Your task to perform on an android device: turn on sleep mode Image 0: 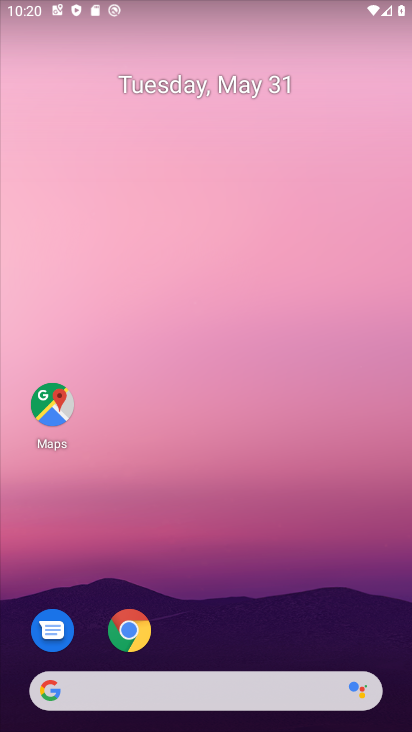
Step 0: drag from (259, 609) to (277, 169)
Your task to perform on an android device: turn on sleep mode Image 1: 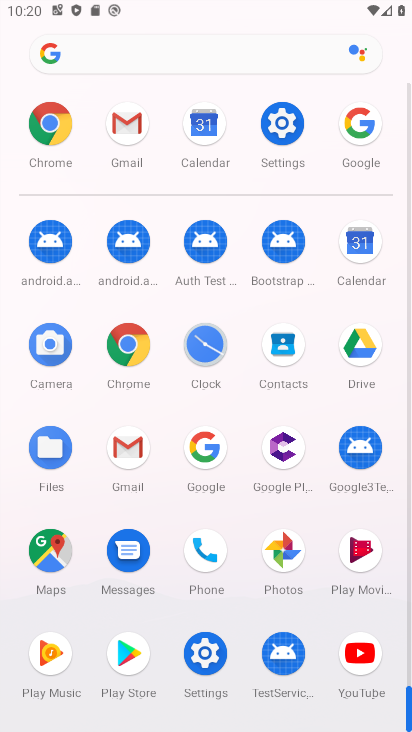
Step 1: click (290, 151)
Your task to perform on an android device: turn on sleep mode Image 2: 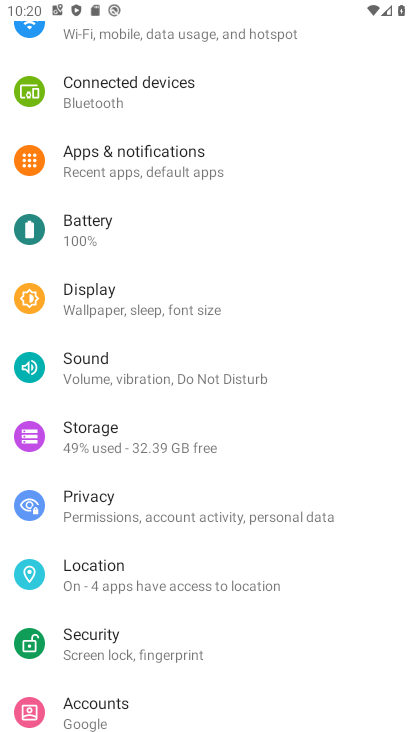
Step 2: click (196, 300)
Your task to perform on an android device: turn on sleep mode Image 3: 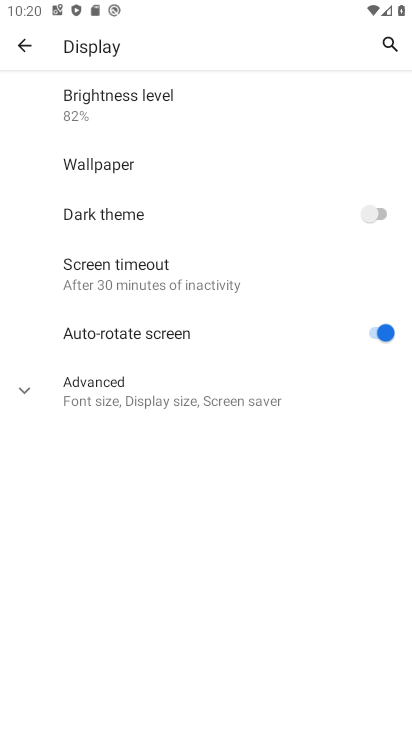
Step 3: click (206, 401)
Your task to perform on an android device: turn on sleep mode Image 4: 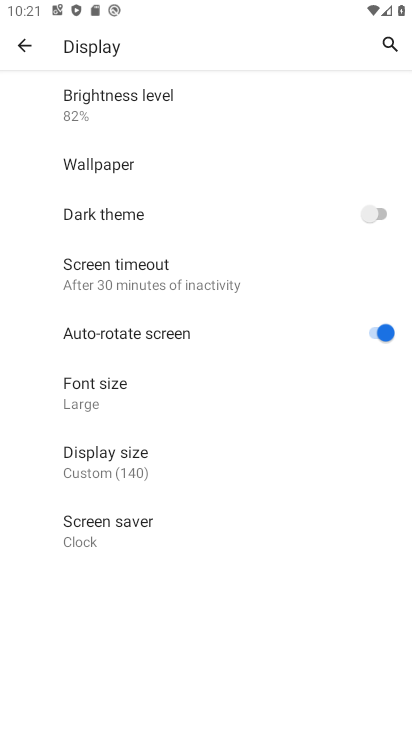
Step 4: task complete